Your task to perform on an android device: see sites visited before in the chrome app Image 0: 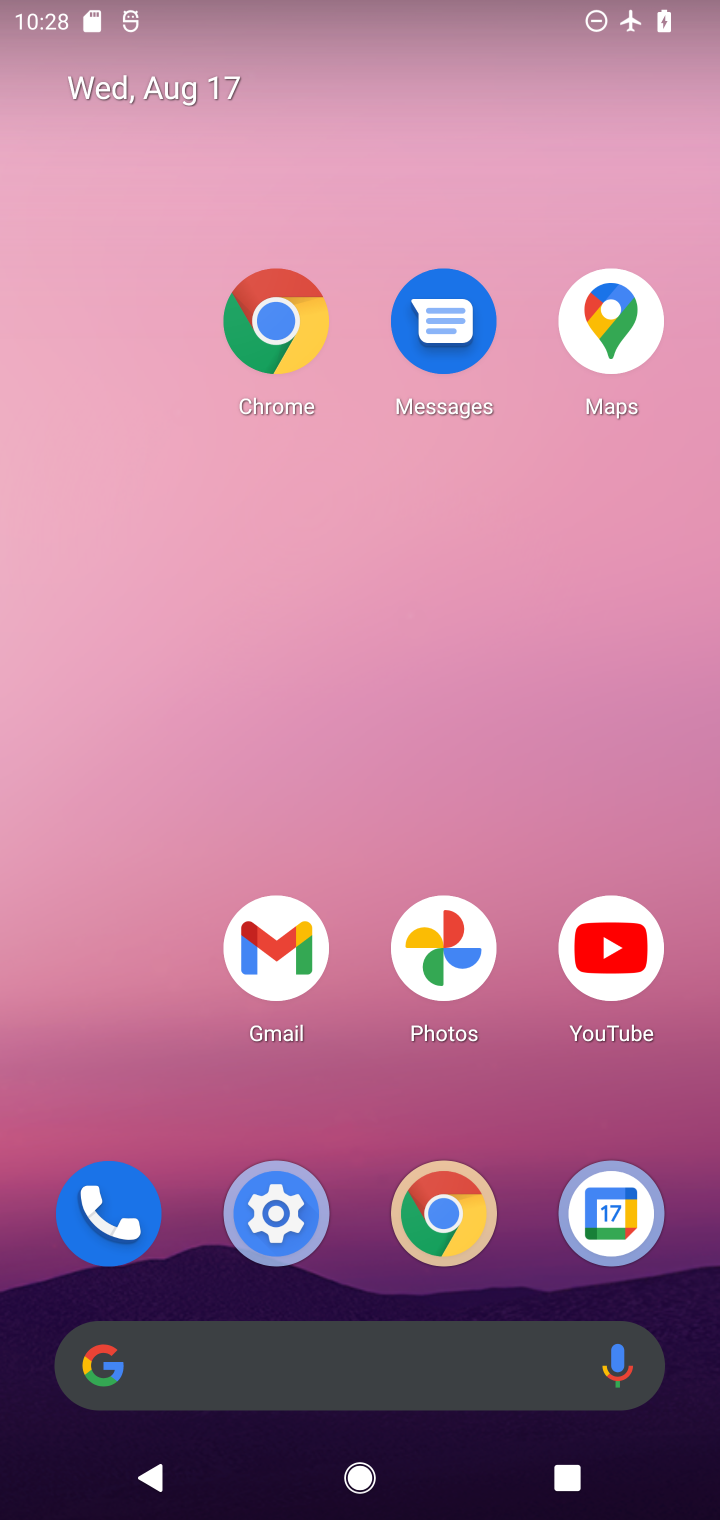
Step 0: click (428, 1192)
Your task to perform on an android device: see sites visited before in the chrome app Image 1: 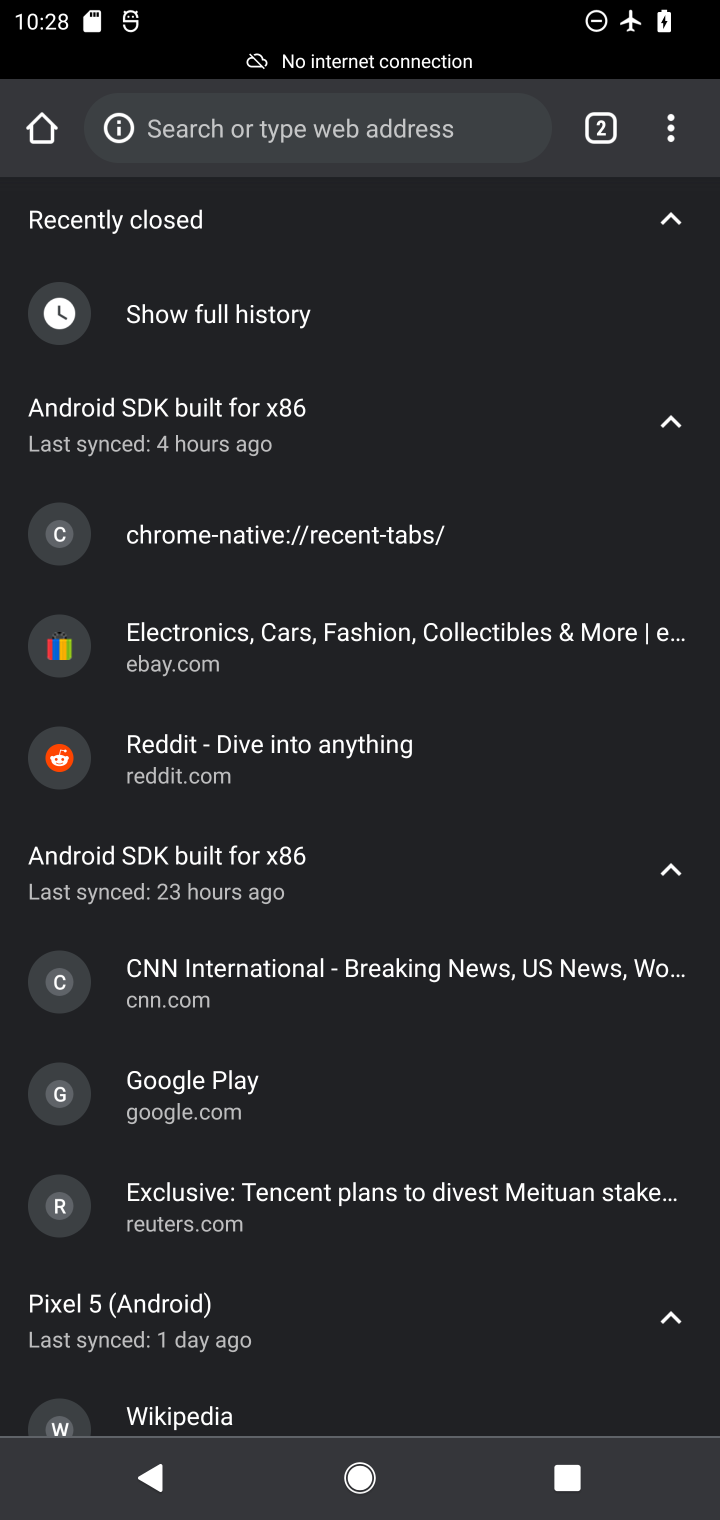
Step 1: task complete